Your task to perform on an android device: Open settings on Google Maps Image 0: 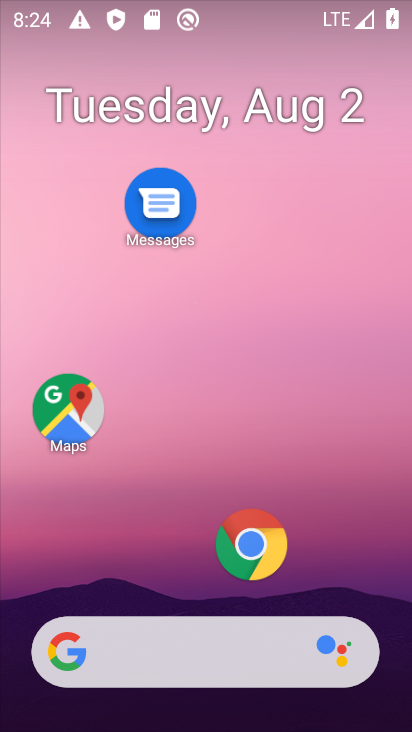
Step 0: click (83, 428)
Your task to perform on an android device: Open settings on Google Maps Image 1: 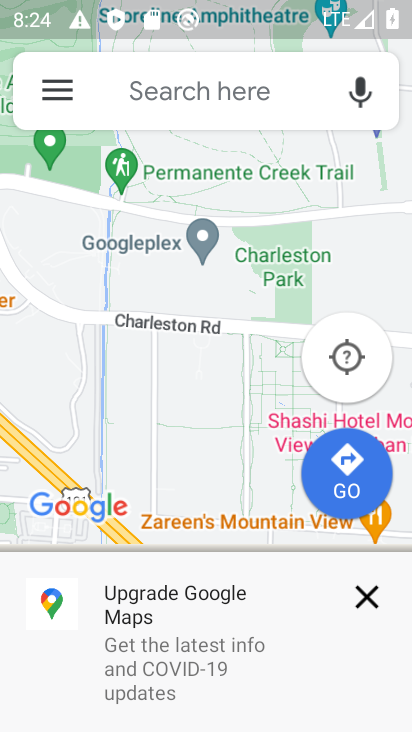
Step 1: click (55, 91)
Your task to perform on an android device: Open settings on Google Maps Image 2: 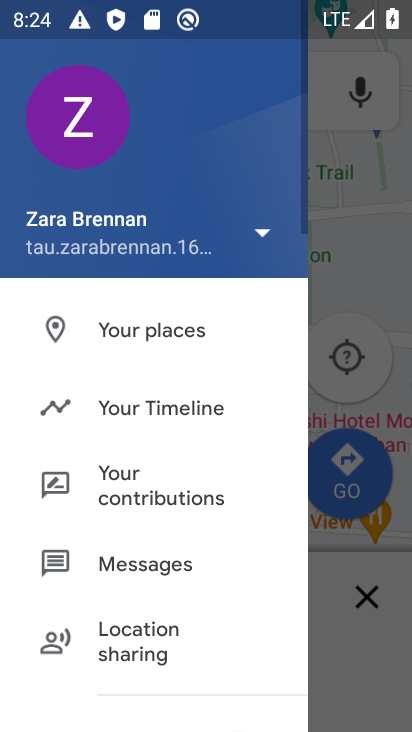
Step 2: drag from (136, 619) to (117, 127)
Your task to perform on an android device: Open settings on Google Maps Image 3: 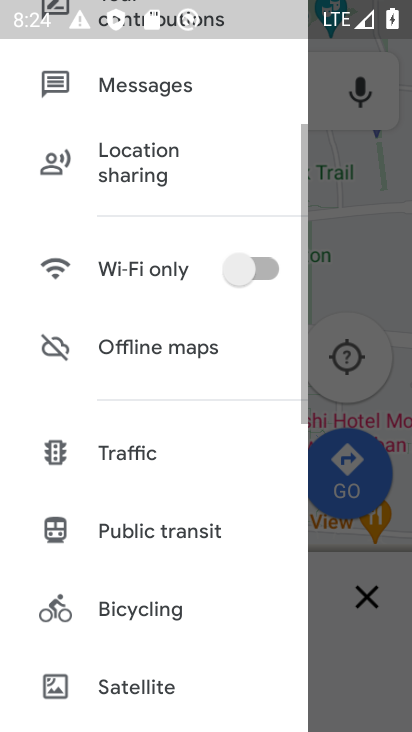
Step 3: drag from (145, 642) to (138, 266)
Your task to perform on an android device: Open settings on Google Maps Image 4: 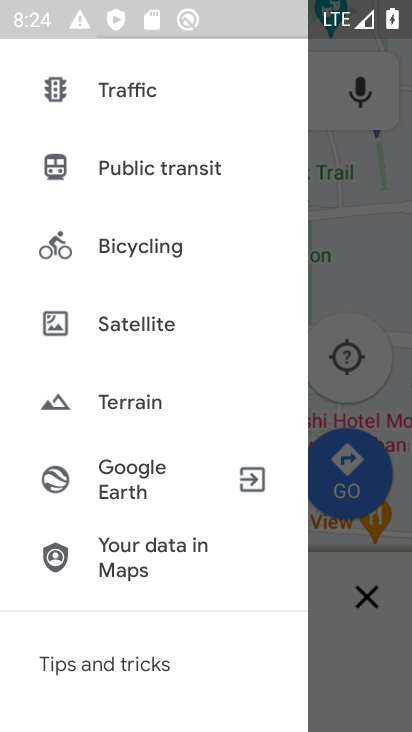
Step 4: drag from (133, 530) to (143, 272)
Your task to perform on an android device: Open settings on Google Maps Image 5: 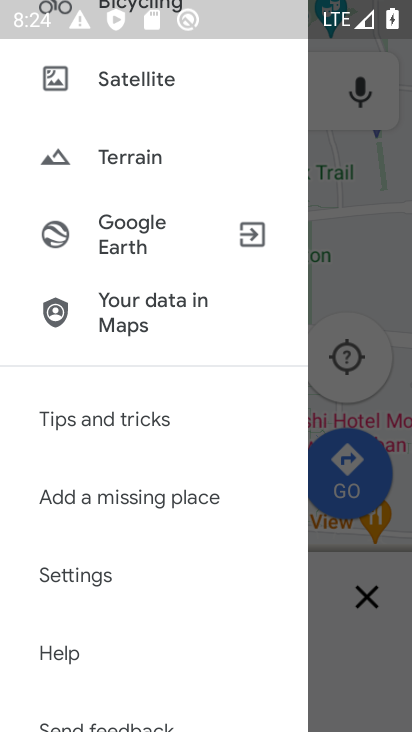
Step 5: click (101, 569)
Your task to perform on an android device: Open settings on Google Maps Image 6: 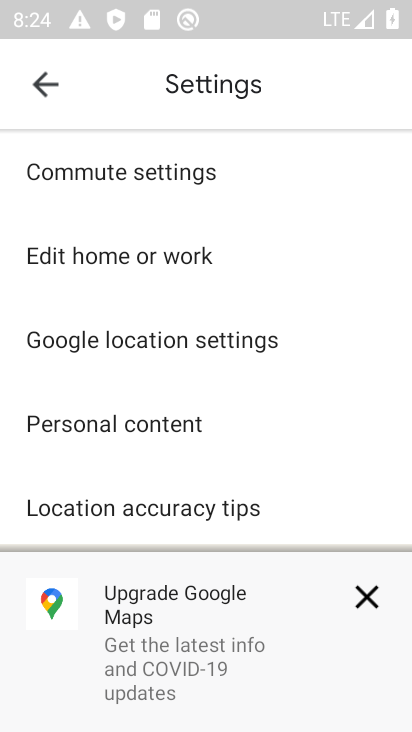
Step 6: task complete